Your task to perform on an android device: snooze an email in the gmail app Image 0: 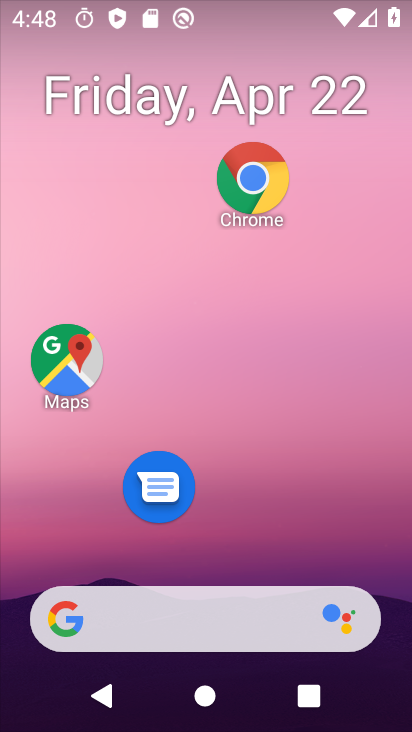
Step 0: drag from (217, 724) to (213, 237)
Your task to perform on an android device: snooze an email in the gmail app Image 1: 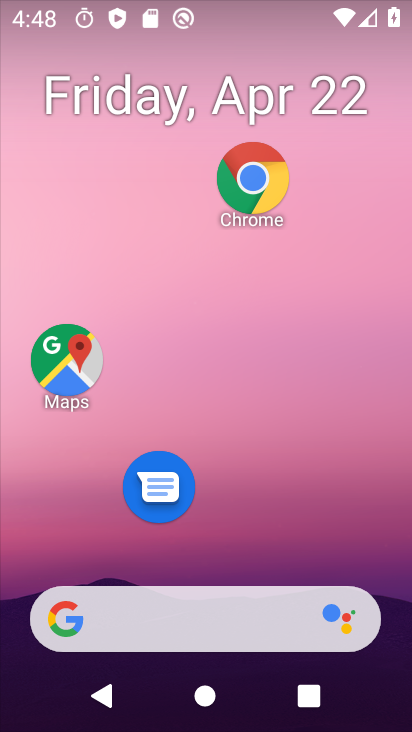
Step 1: drag from (216, 703) to (188, 111)
Your task to perform on an android device: snooze an email in the gmail app Image 2: 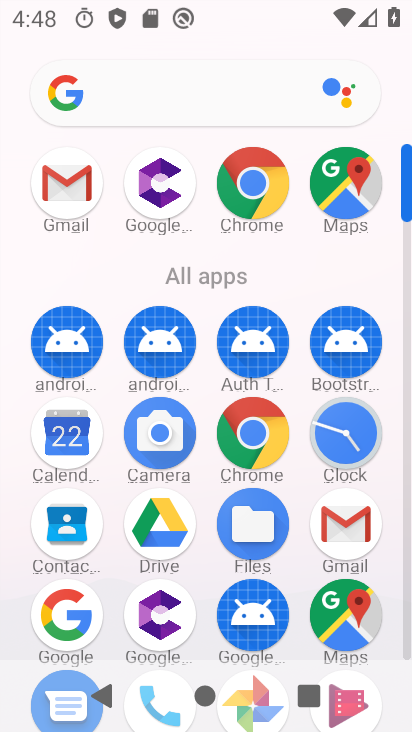
Step 2: click (341, 523)
Your task to perform on an android device: snooze an email in the gmail app Image 3: 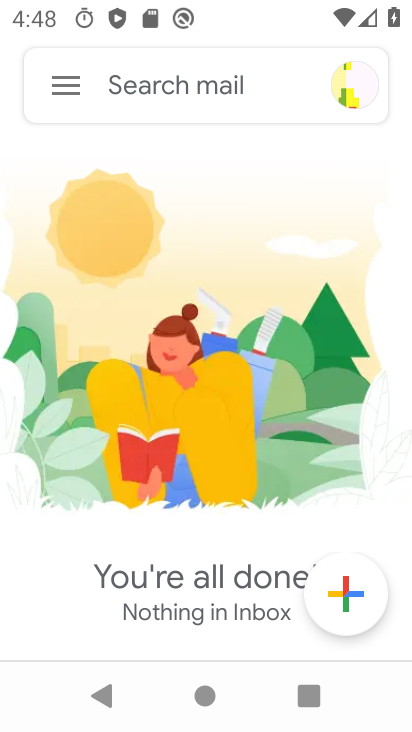
Step 3: task complete